Your task to perform on an android device: What's the weather going to be this weekend? Image 0: 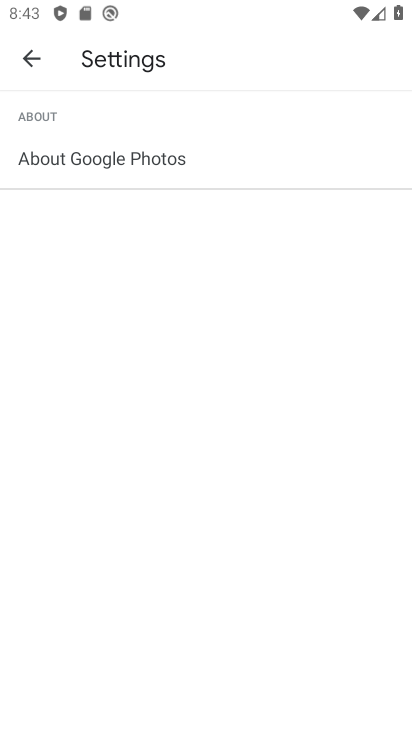
Step 0: press home button
Your task to perform on an android device: What's the weather going to be this weekend? Image 1: 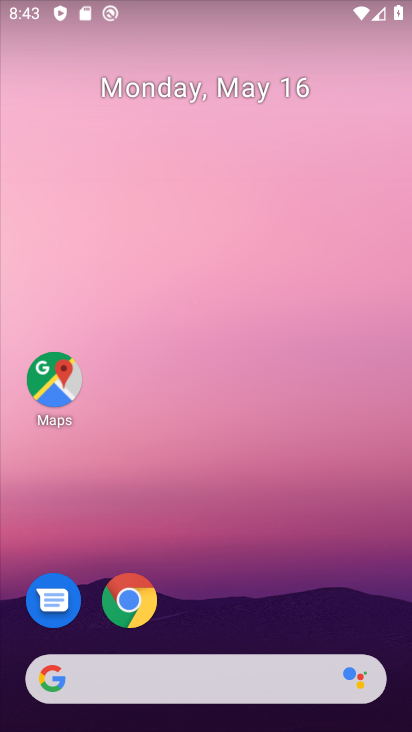
Step 1: drag from (201, 649) to (202, 283)
Your task to perform on an android device: What's the weather going to be this weekend? Image 2: 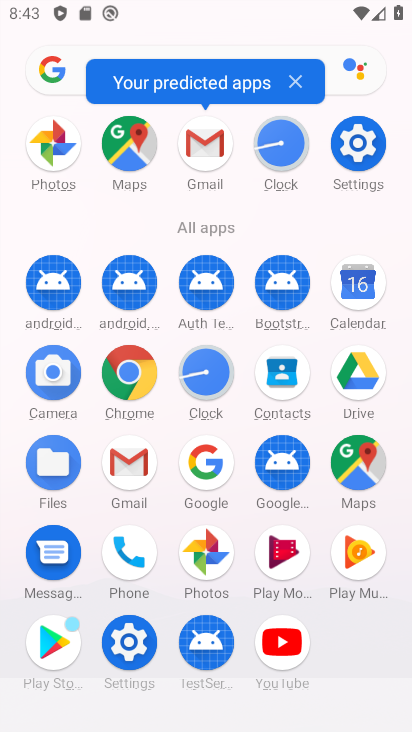
Step 2: click (204, 462)
Your task to perform on an android device: What's the weather going to be this weekend? Image 3: 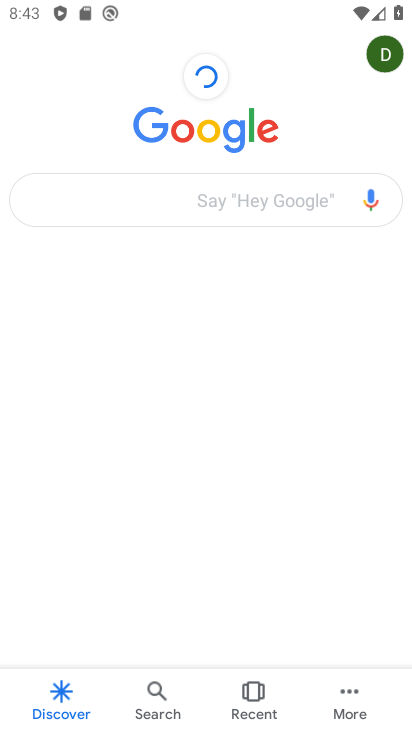
Step 3: click (203, 204)
Your task to perform on an android device: What's the weather going to be this weekend? Image 4: 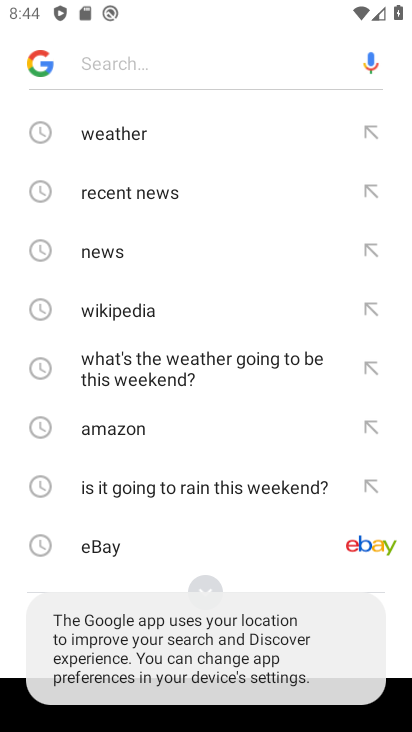
Step 4: click (160, 362)
Your task to perform on an android device: What's the weather going to be this weekend? Image 5: 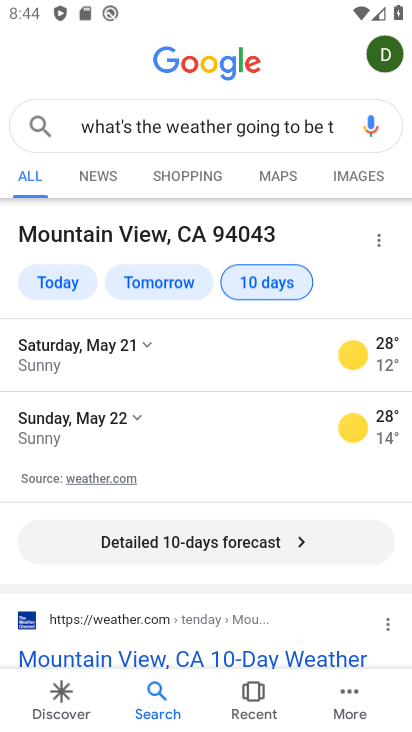
Step 5: click (213, 546)
Your task to perform on an android device: What's the weather going to be this weekend? Image 6: 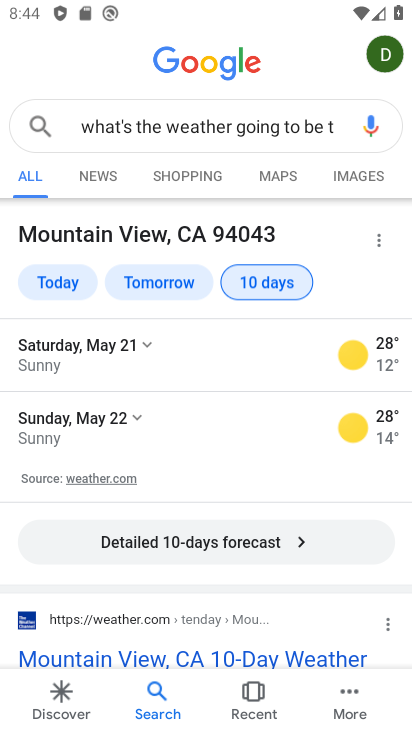
Step 6: click (205, 557)
Your task to perform on an android device: What's the weather going to be this weekend? Image 7: 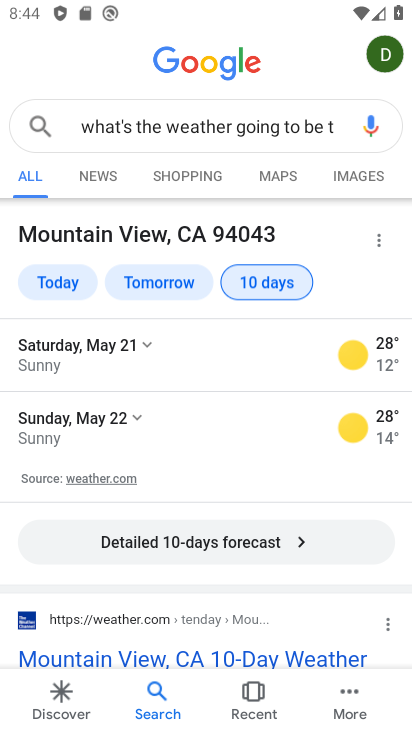
Step 7: task complete